Your task to perform on an android device: Open Google Chrome and open the bookmarks view Image 0: 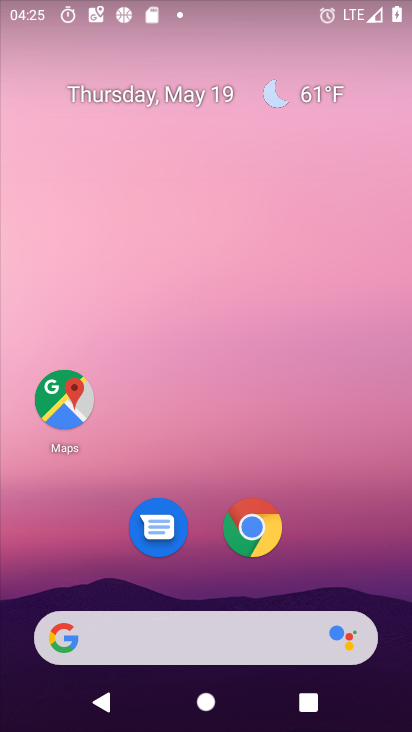
Step 0: click (261, 523)
Your task to perform on an android device: Open Google Chrome and open the bookmarks view Image 1: 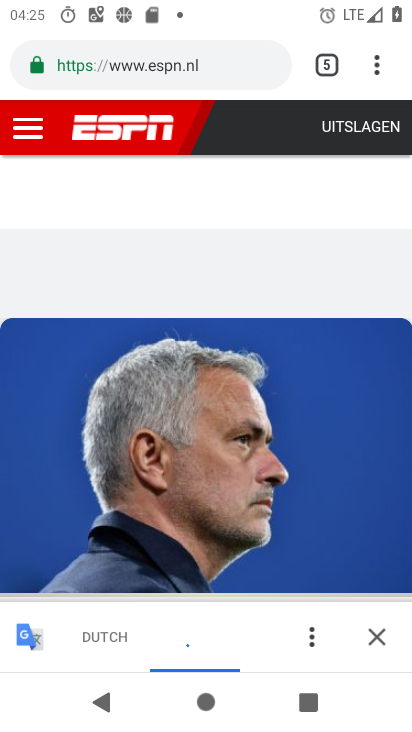
Step 1: task complete